Your task to perform on an android device: change timer sound Image 0: 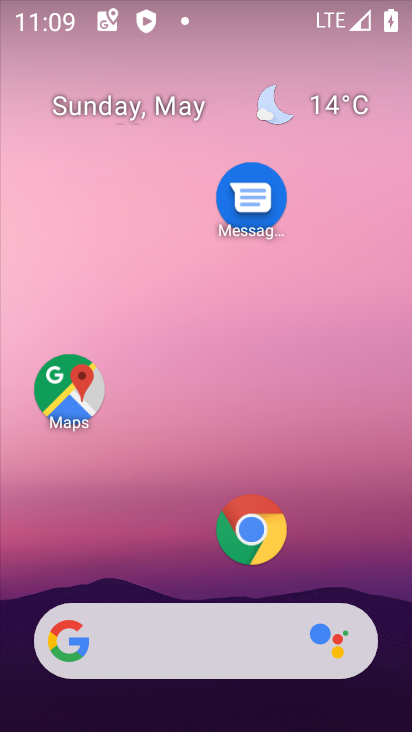
Step 0: drag from (194, 579) to (26, 0)
Your task to perform on an android device: change timer sound Image 1: 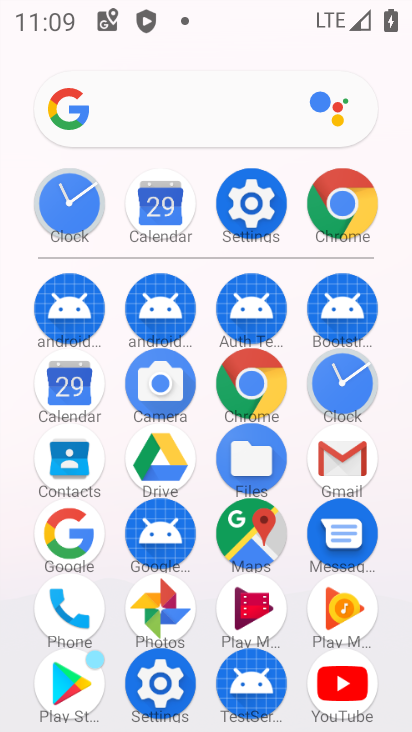
Step 1: click (334, 380)
Your task to perform on an android device: change timer sound Image 2: 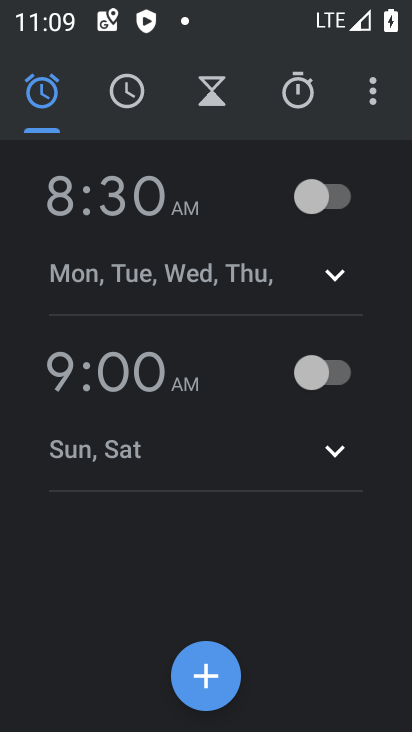
Step 2: click (375, 104)
Your task to perform on an android device: change timer sound Image 3: 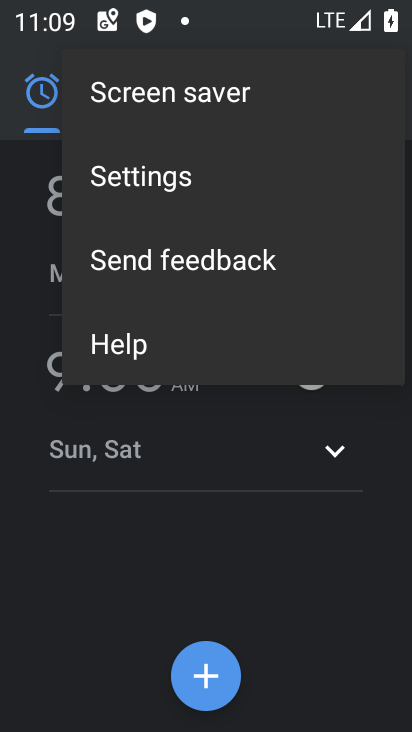
Step 3: click (182, 177)
Your task to perform on an android device: change timer sound Image 4: 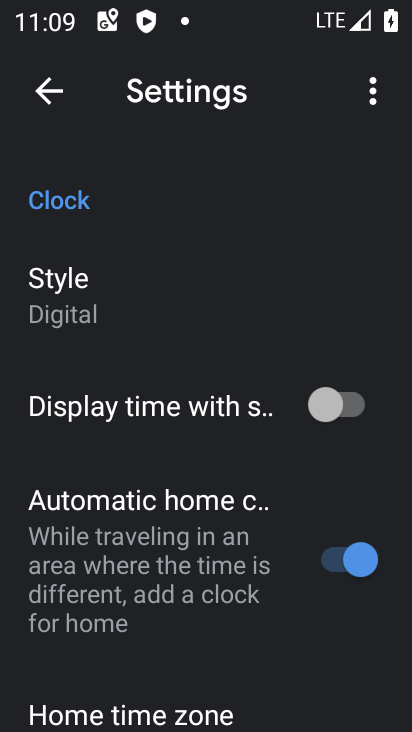
Step 4: drag from (252, 653) to (130, 234)
Your task to perform on an android device: change timer sound Image 5: 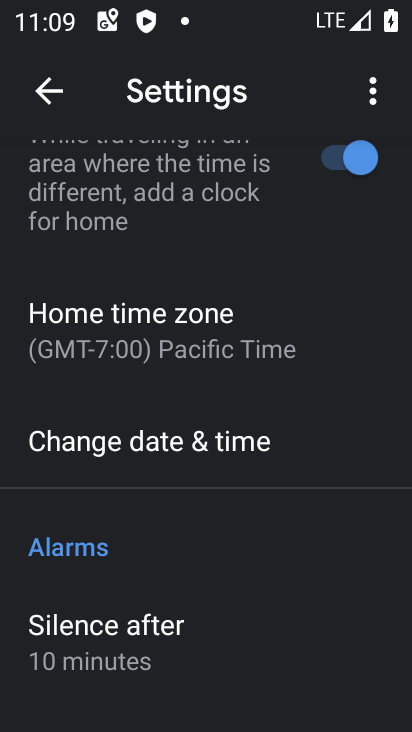
Step 5: drag from (119, 602) to (148, 221)
Your task to perform on an android device: change timer sound Image 6: 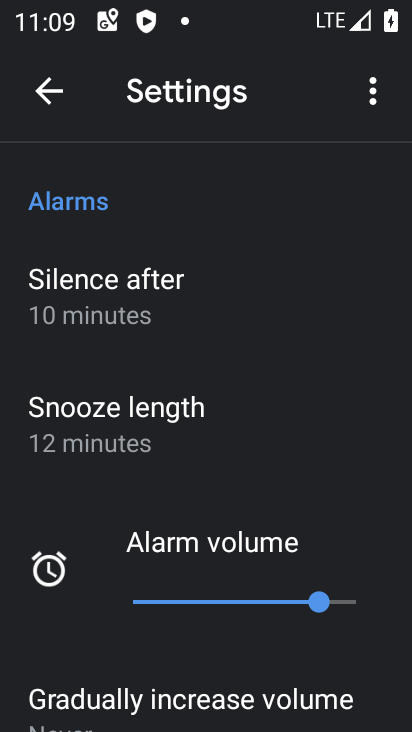
Step 6: drag from (153, 491) to (146, 234)
Your task to perform on an android device: change timer sound Image 7: 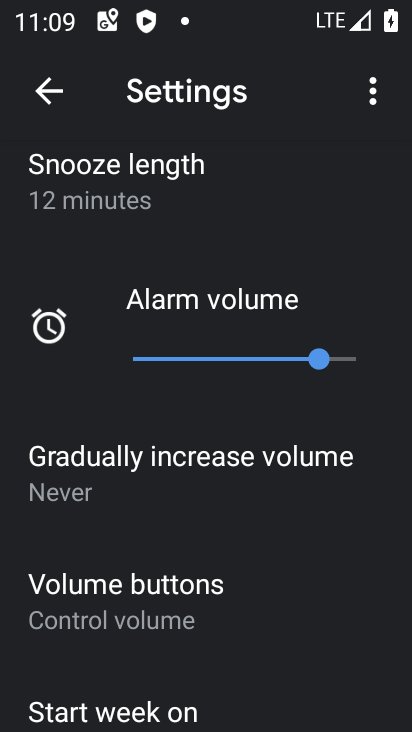
Step 7: drag from (215, 658) to (219, 324)
Your task to perform on an android device: change timer sound Image 8: 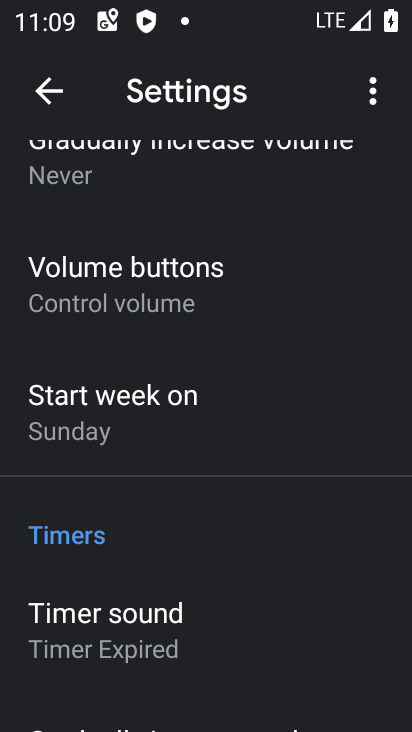
Step 8: click (164, 620)
Your task to perform on an android device: change timer sound Image 9: 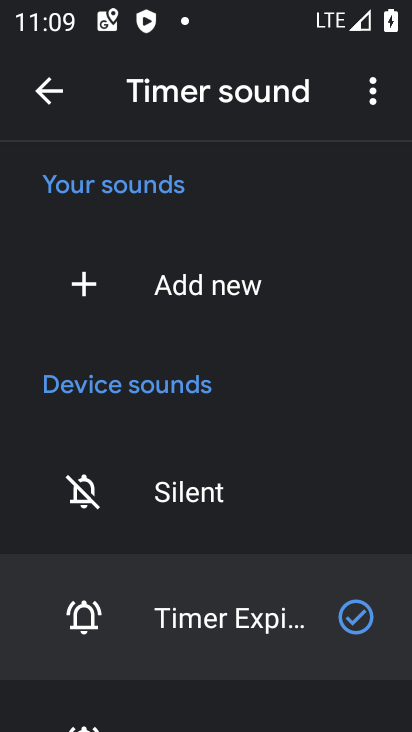
Step 9: drag from (231, 586) to (233, 354)
Your task to perform on an android device: change timer sound Image 10: 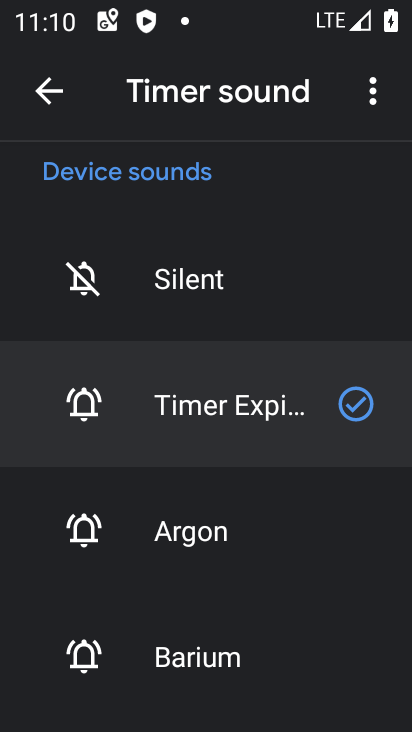
Step 10: click (249, 554)
Your task to perform on an android device: change timer sound Image 11: 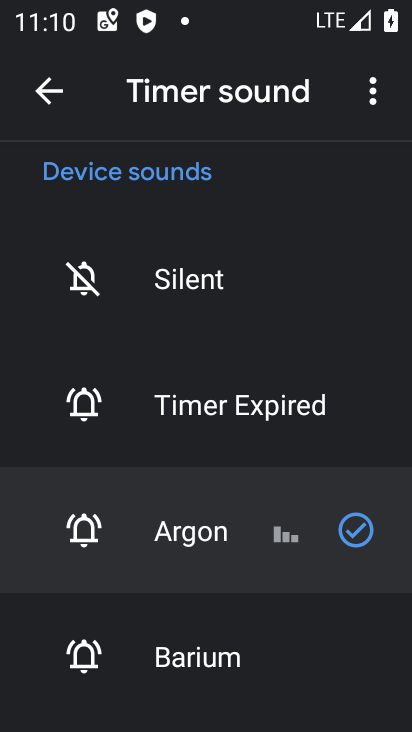
Step 11: task complete